Your task to perform on an android device: Open Google Maps and go to "Timeline" Image 0: 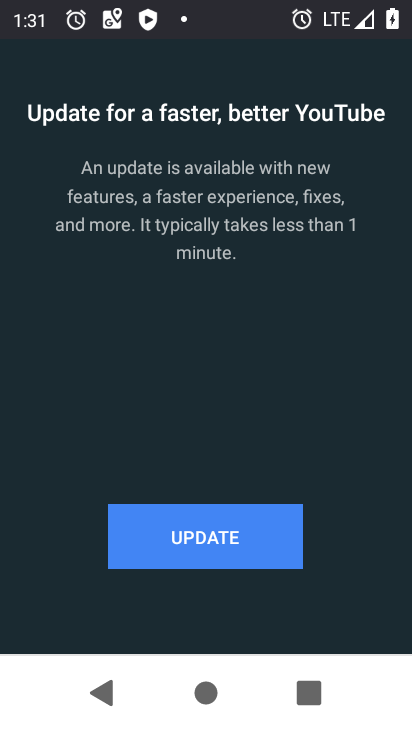
Step 0: press home button
Your task to perform on an android device: Open Google Maps and go to "Timeline" Image 1: 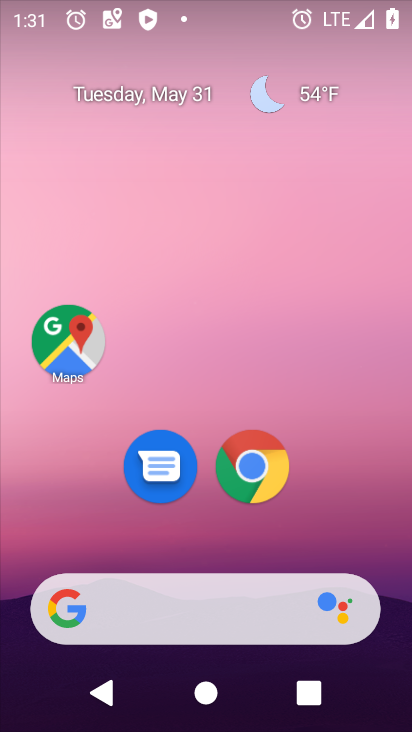
Step 1: click (84, 340)
Your task to perform on an android device: Open Google Maps and go to "Timeline" Image 2: 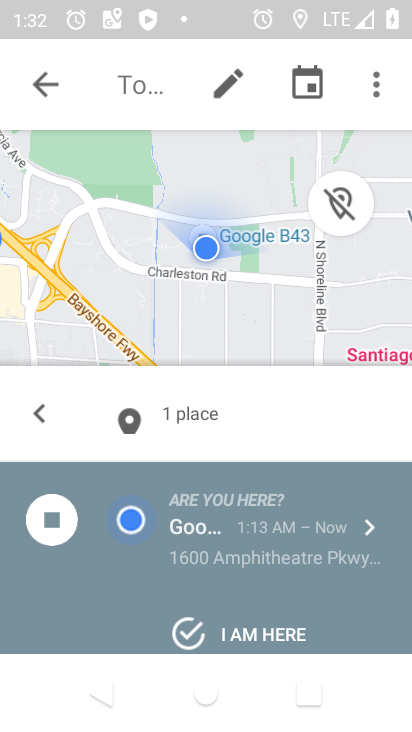
Step 2: task complete